Your task to perform on an android device: find snoozed emails in the gmail app Image 0: 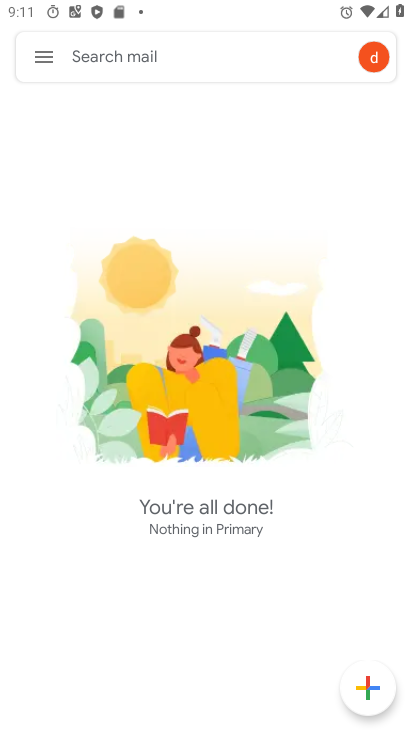
Step 0: click (41, 59)
Your task to perform on an android device: find snoozed emails in the gmail app Image 1: 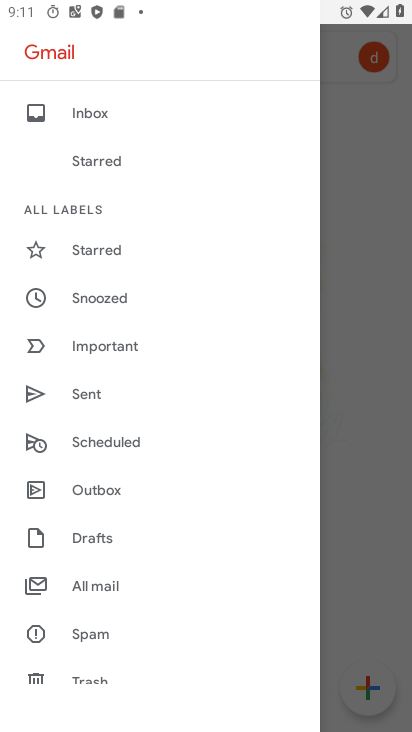
Step 1: click (121, 298)
Your task to perform on an android device: find snoozed emails in the gmail app Image 2: 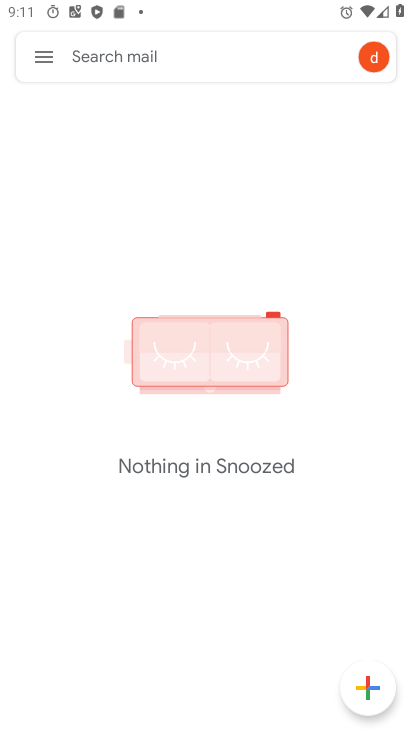
Step 2: task complete